Your task to perform on an android device: turn off javascript in the chrome app Image 0: 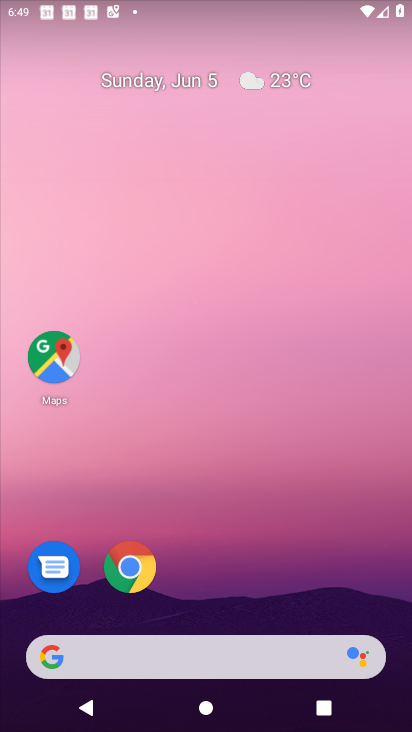
Step 0: click (384, 566)
Your task to perform on an android device: turn off javascript in the chrome app Image 1: 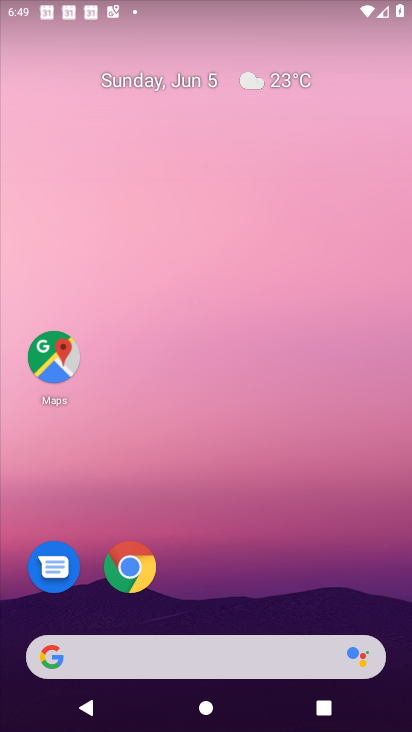
Step 1: click (295, 69)
Your task to perform on an android device: turn off javascript in the chrome app Image 2: 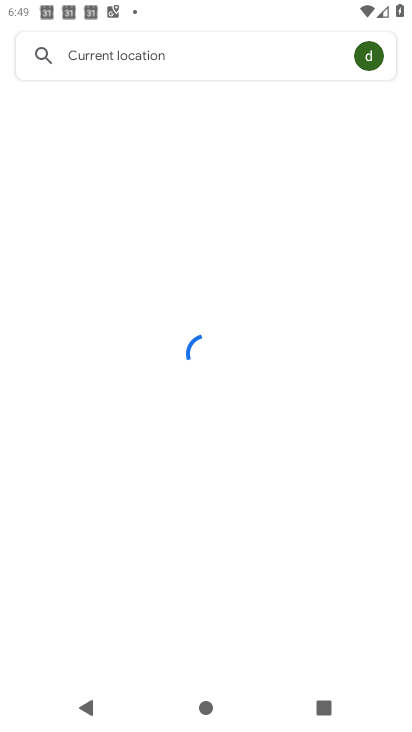
Step 2: press home button
Your task to perform on an android device: turn off javascript in the chrome app Image 3: 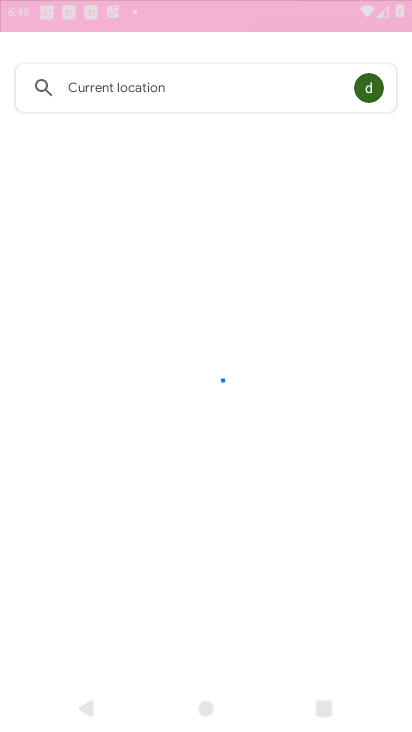
Step 3: click (349, 641)
Your task to perform on an android device: turn off javascript in the chrome app Image 4: 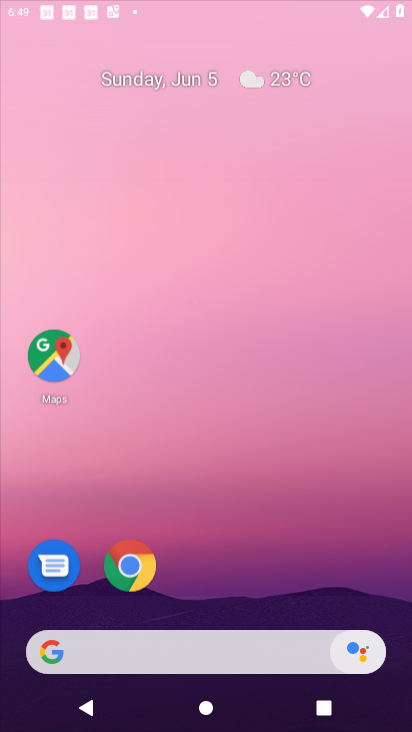
Step 4: drag from (292, 270) to (229, 76)
Your task to perform on an android device: turn off javascript in the chrome app Image 5: 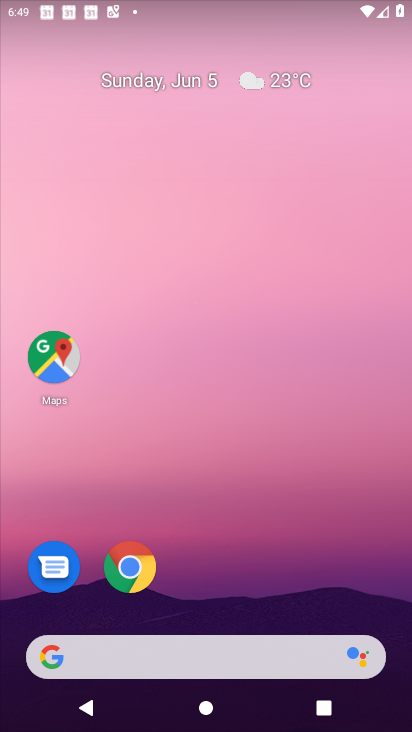
Step 5: drag from (383, 508) to (263, 44)
Your task to perform on an android device: turn off javascript in the chrome app Image 6: 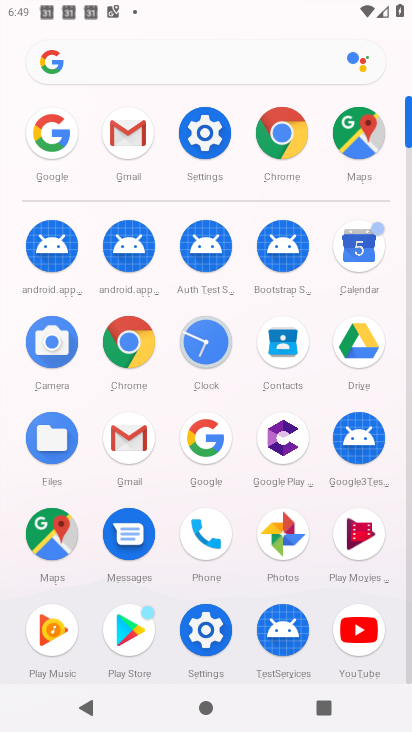
Step 6: click (294, 148)
Your task to perform on an android device: turn off javascript in the chrome app Image 7: 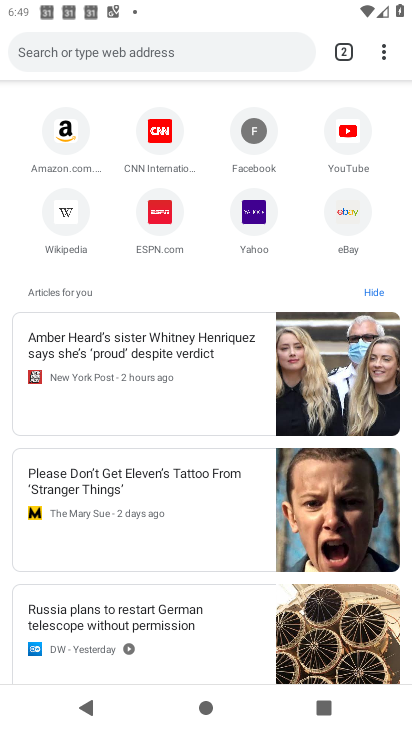
Step 7: click (381, 49)
Your task to perform on an android device: turn off javascript in the chrome app Image 8: 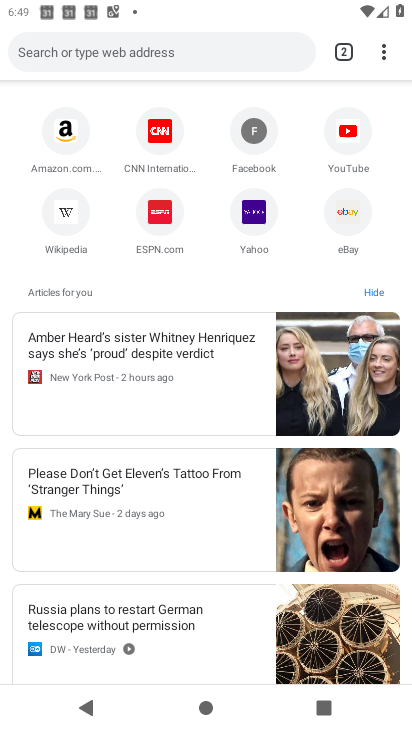
Step 8: click (383, 42)
Your task to perform on an android device: turn off javascript in the chrome app Image 9: 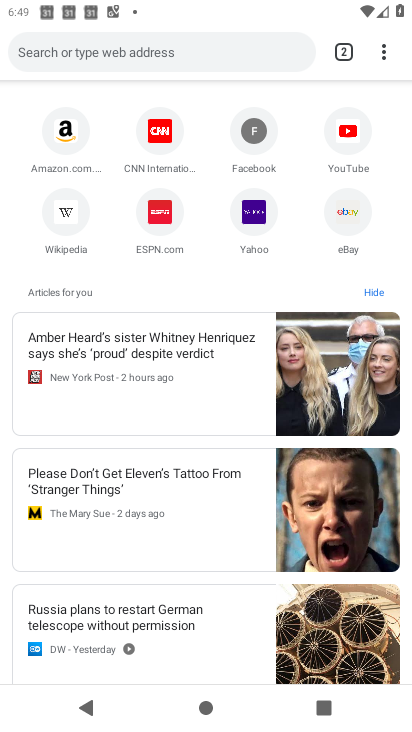
Step 9: click (386, 55)
Your task to perform on an android device: turn off javascript in the chrome app Image 10: 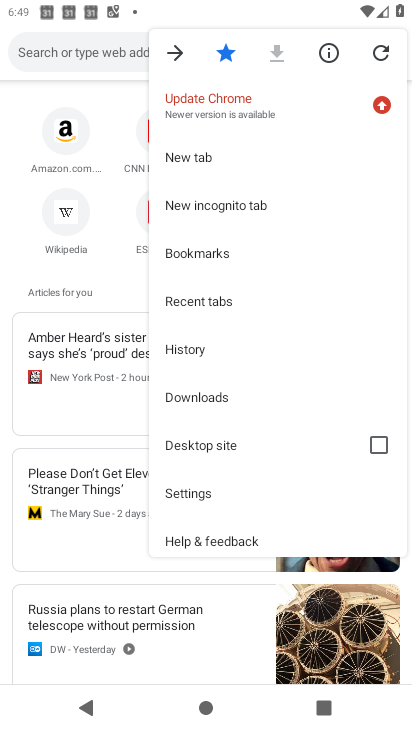
Step 10: click (211, 492)
Your task to perform on an android device: turn off javascript in the chrome app Image 11: 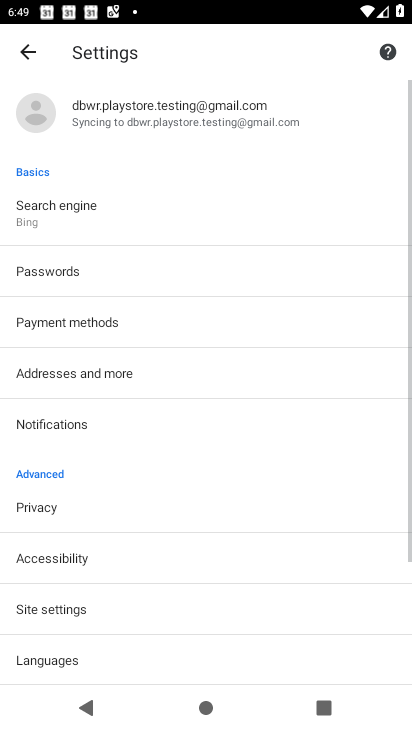
Step 11: click (127, 613)
Your task to perform on an android device: turn off javascript in the chrome app Image 12: 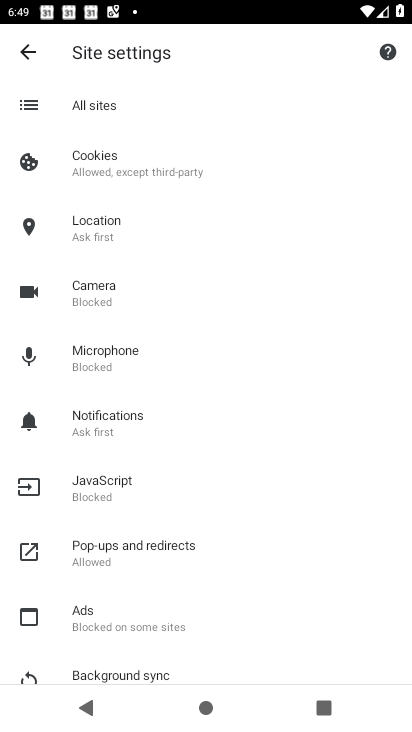
Step 12: click (152, 485)
Your task to perform on an android device: turn off javascript in the chrome app Image 13: 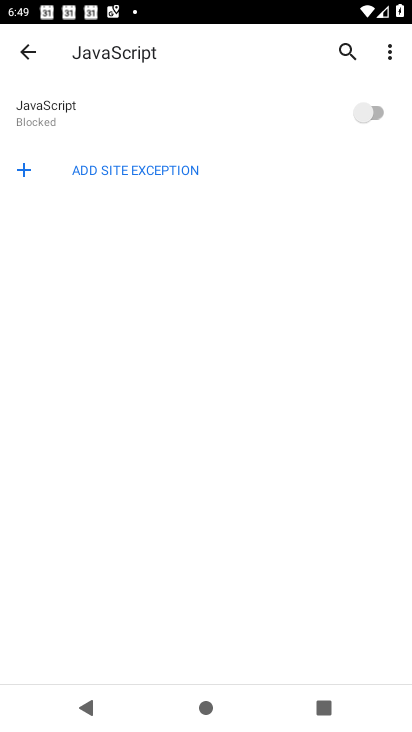
Step 13: task complete